Your task to perform on an android device: What's the weather today? Image 0: 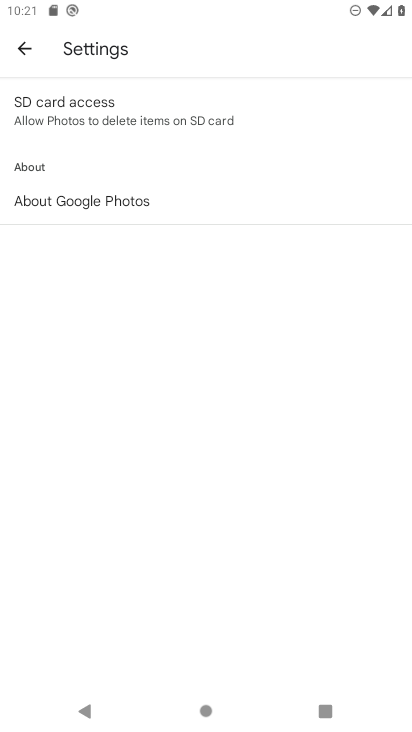
Step 0: press home button
Your task to perform on an android device: What's the weather today? Image 1: 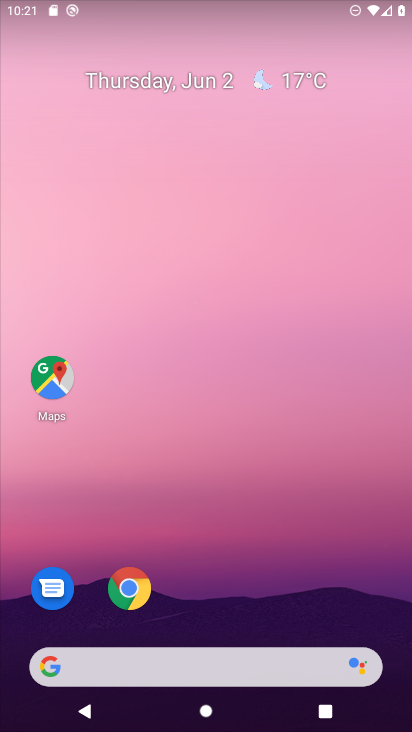
Step 1: drag from (276, 550) to (293, 252)
Your task to perform on an android device: What's the weather today? Image 2: 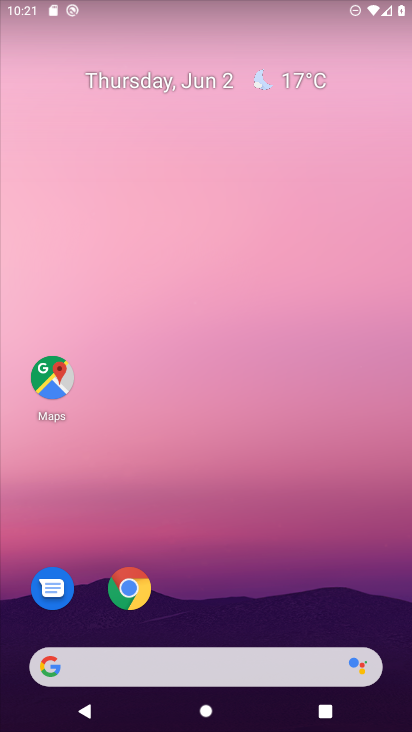
Step 2: drag from (187, 654) to (224, 1)
Your task to perform on an android device: What's the weather today? Image 3: 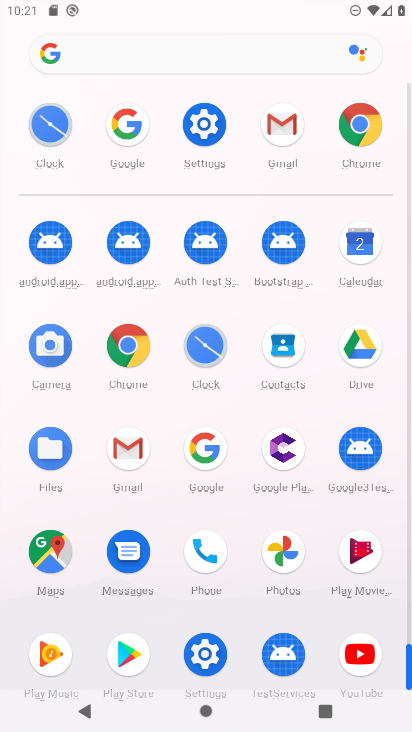
Step 3: click (231, 453)
Your task to perform on an android device: What's the weather today? Image 4: 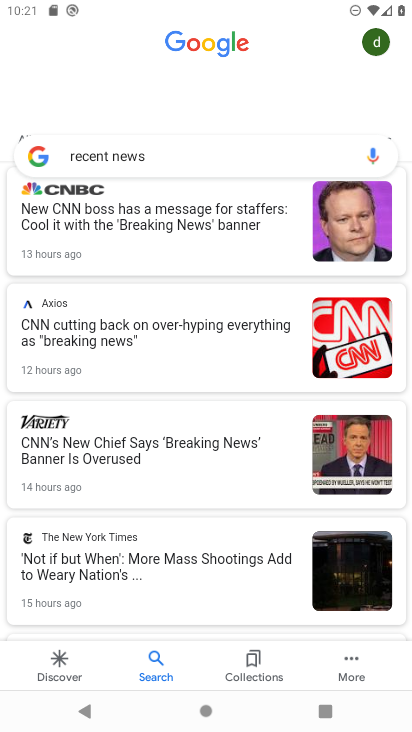
Step 4: click (235, 155)
Your task to perform on an android device: What's the weather today? Image 5: 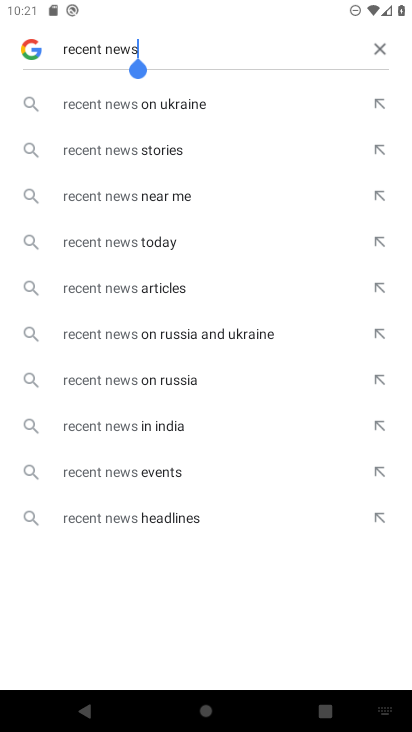
Step 5: click (389, 49)
Your task to perform on an android device: What's the weather today? Image 6: 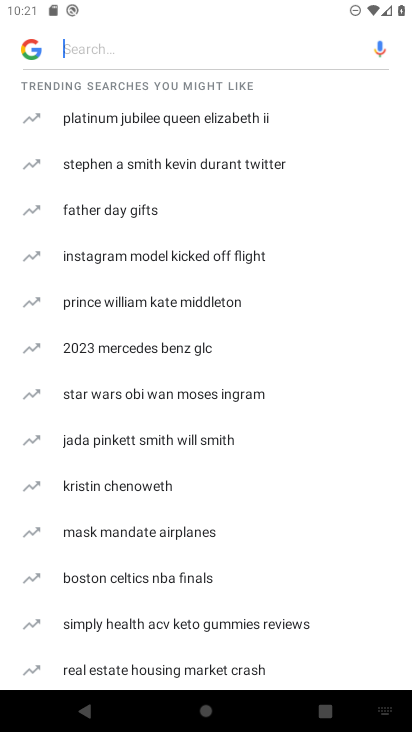
Step 6: type "weather"
Your task to perform on an android device: What's the weather today? Image 7: 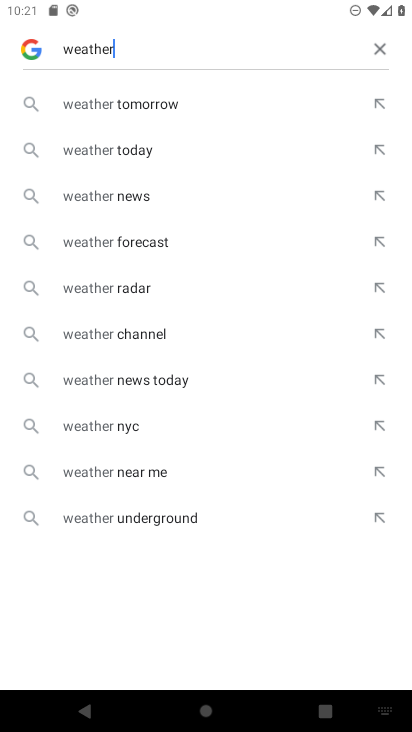
Step 7: click (167, 148)
Your task to perform on an android device: What's the weather today? Image 8: 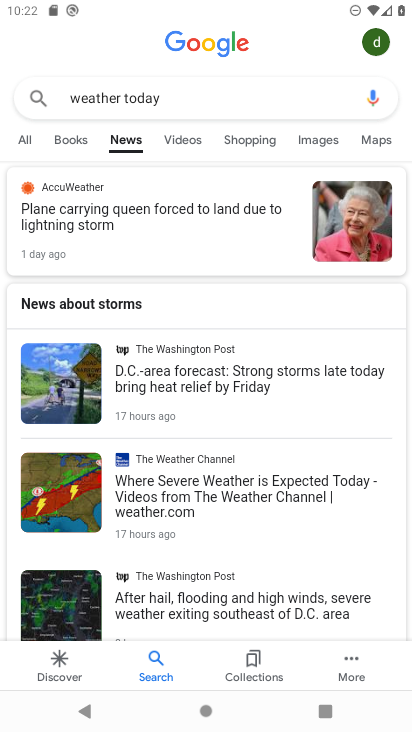
Step 8: click (32, 140)
Your task to perform on an android device: What's the weather today? Image 9: 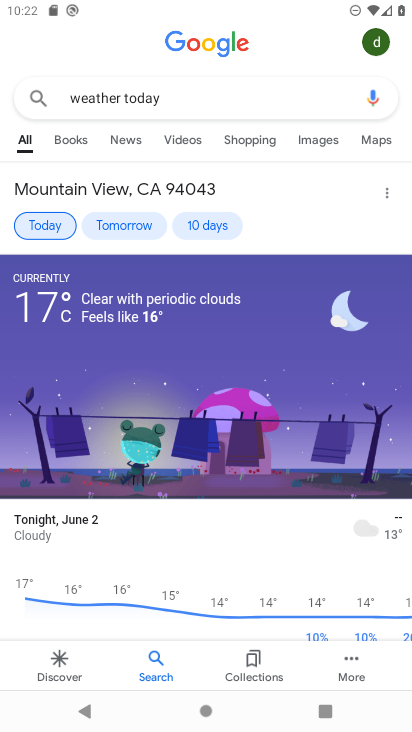
Step 9: task complete